Your task to perform on an android device: Go to Wikipedia Image 0: 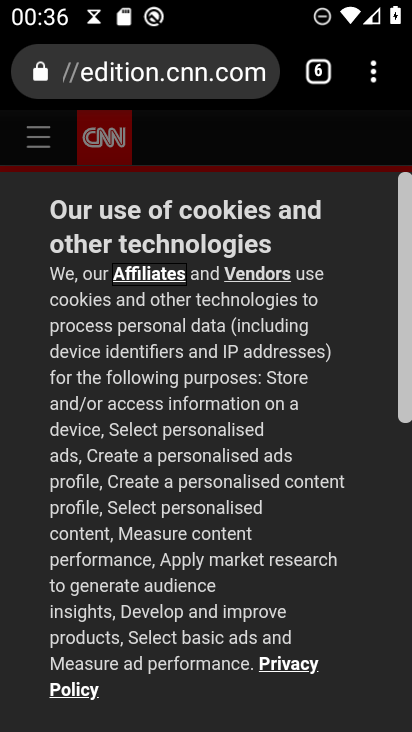
Step 0: click (311, 72)
Your task to perform on an android device: Go to Wikipedia Image 1: 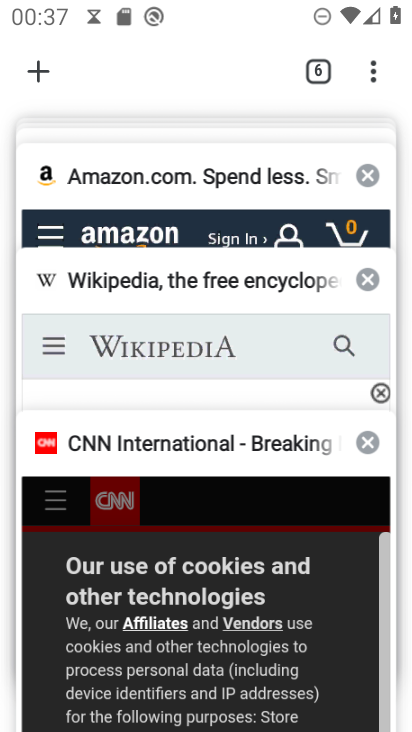
Step 1: click (111, 282)
Your task to perform on an android device: Go to Wikipedia Image 2: 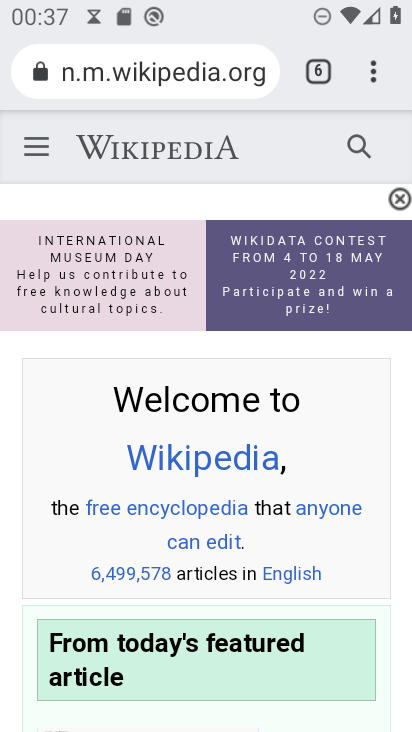
Step 2: task complete